Your task to perform on an android device: open a bookmark in the chrome app Image 0: 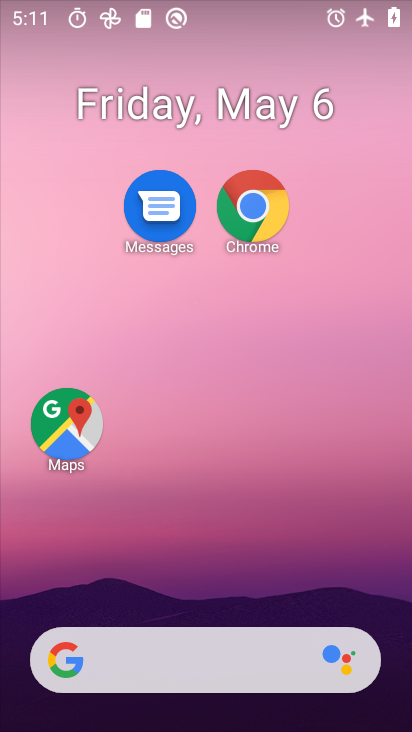
Step 0: click (240, 212)
Your task to perform on an android device: open a bookmark in the chrome app Image 1: 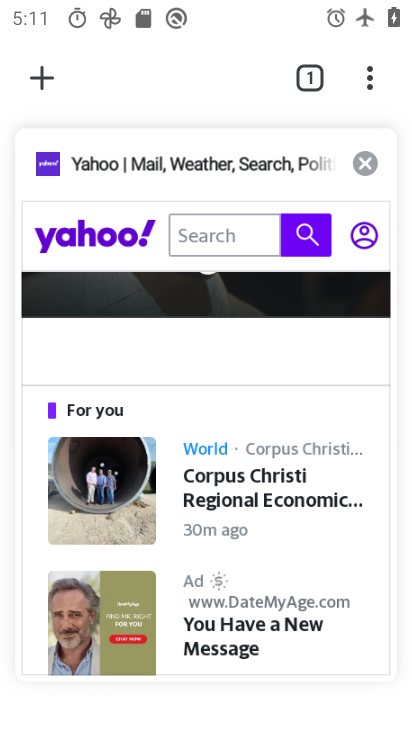
Step 1: click (370, 74)
Your task to perform on an android device: open a bookmark in the chrome app Image 2: 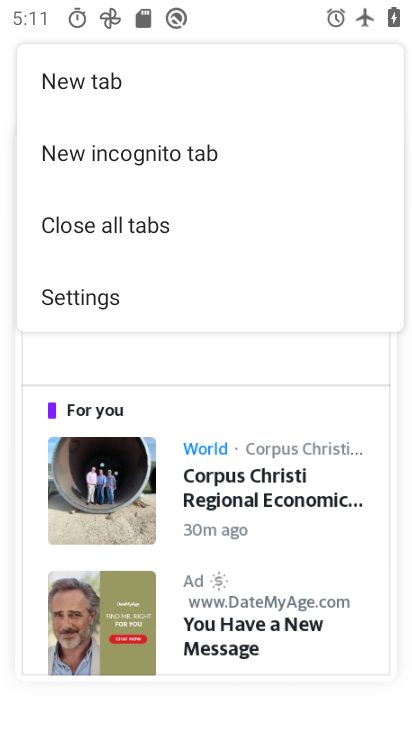
Step 2: click (14, 385)
Your task to perform on an android device: open a bookmark in the chrome app Image 3: 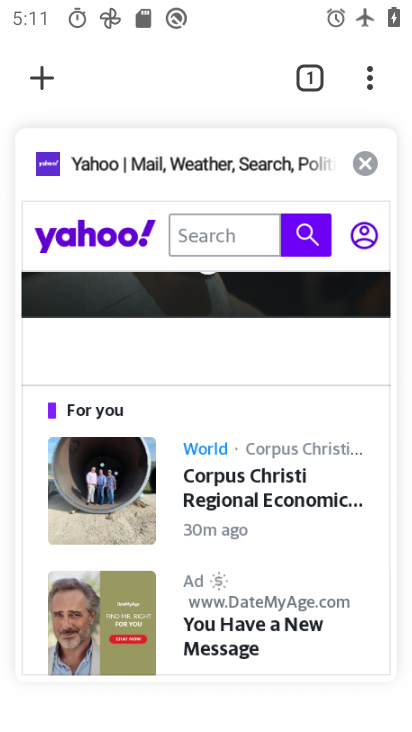
Step 3: click (42, 78)
Your task to perform on an android device: open a bookmark in the chrome app Image 4: 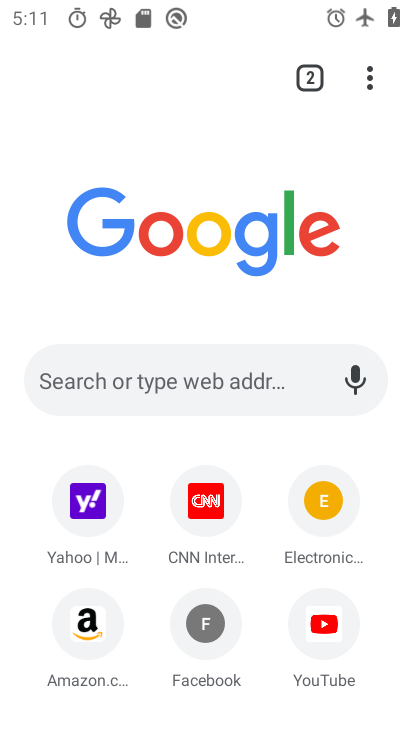
Step 4: click (369, 73)
Your task to perform on an android device: open a bookmark in the chrome app Image 5: 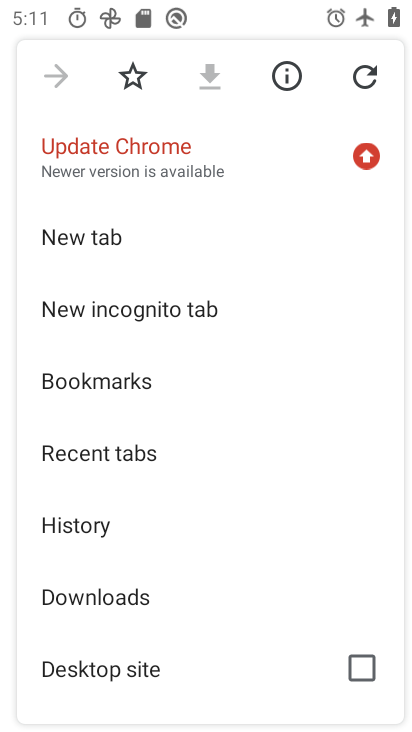
Step 5: click (107, 379)
Your task to perform on an android device: open a bookmark in the chrome app Image 6: 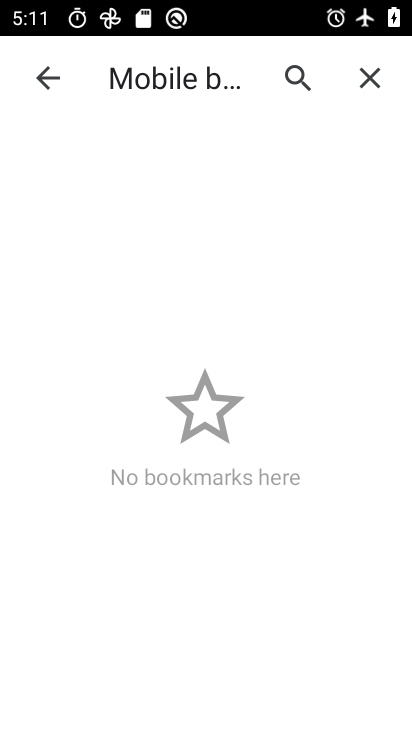
Step 6: task complete